Your task to perform on an android device: Open Youtube and go to "Your channel" Image 0: 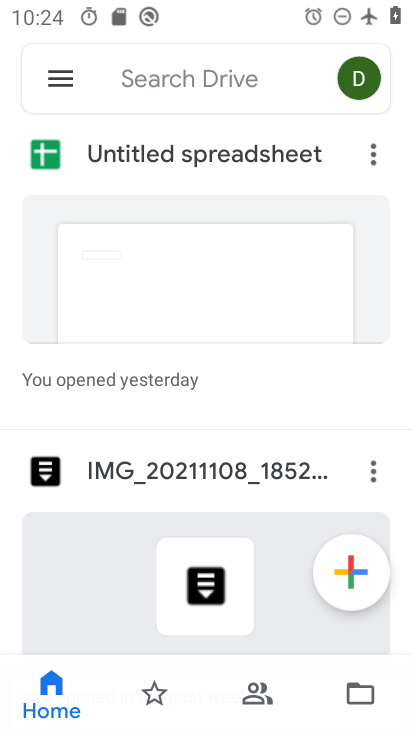
Step 0: press home button
Your task to perform on an android device: Open Youtube and go to "Your channel" Image 1: 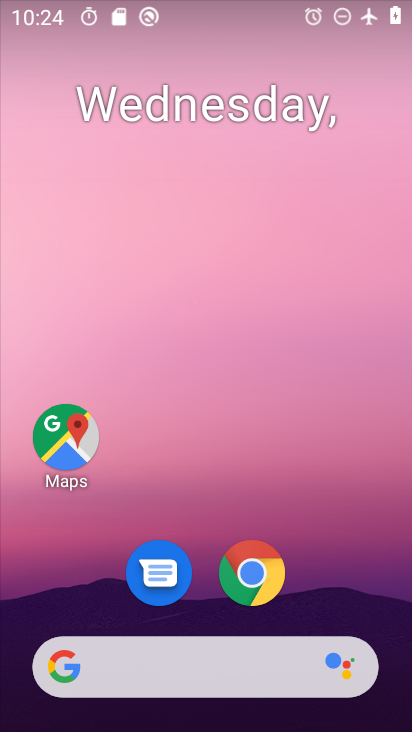
Step 1: drag from (296, 667) to (334, 271)
Your task to perform on an android device: Open Youtube and go to "Your channel" Image 2: 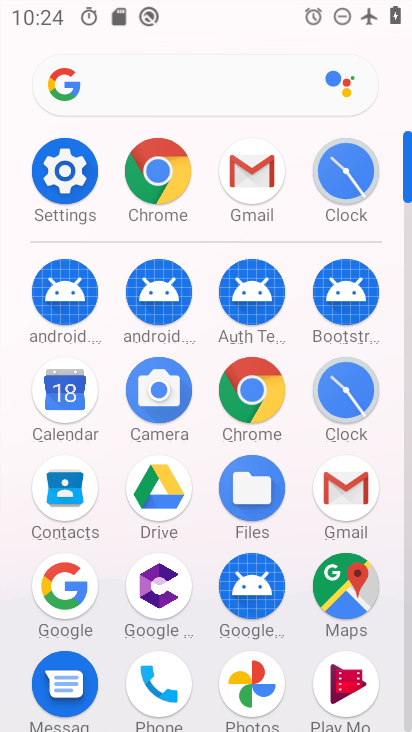
Step 2: drag from (270, 573) to (288, 300)
Your task to perform on an android device: Open Youtube and go to "Your channel" Image 3: 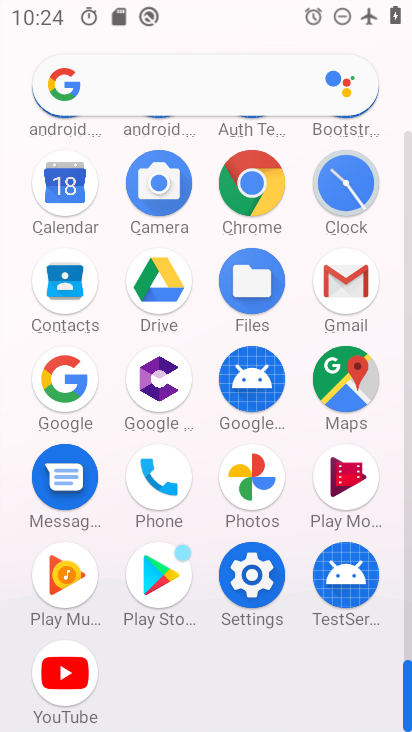
Step 3: click (80, 666)
Your task to perform on an android device: Open Youtube and go to "Your channel" Image 4: 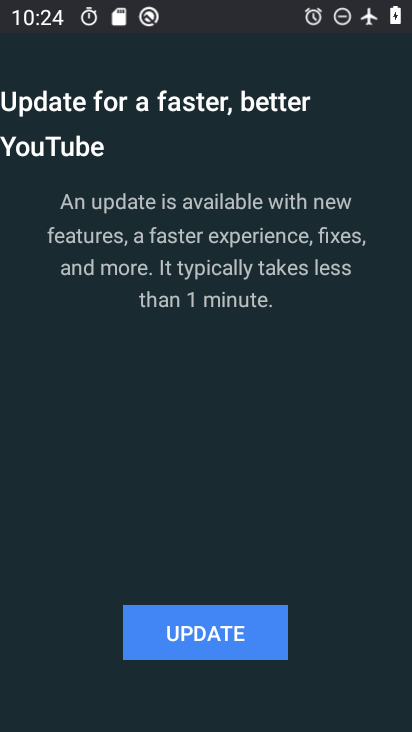
Step 4: click (258, 623)
Your task to perform on an android device: Open Youtube and go to "Your channel" Image 5: 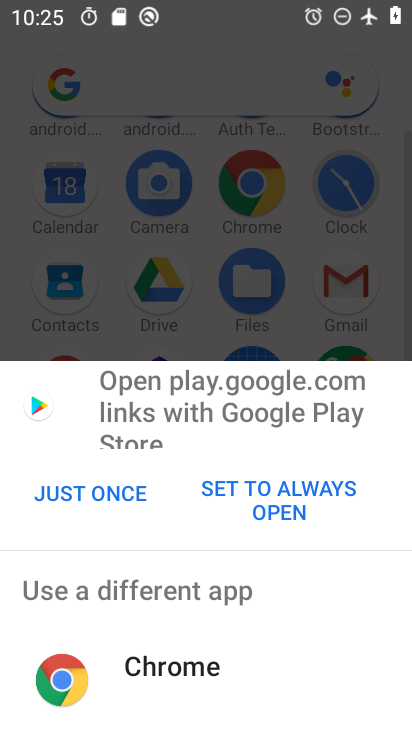
Step 5: click (115, 498)
Your task to perform on an android device: Open Youtube and go to "Your channel" Image 6: 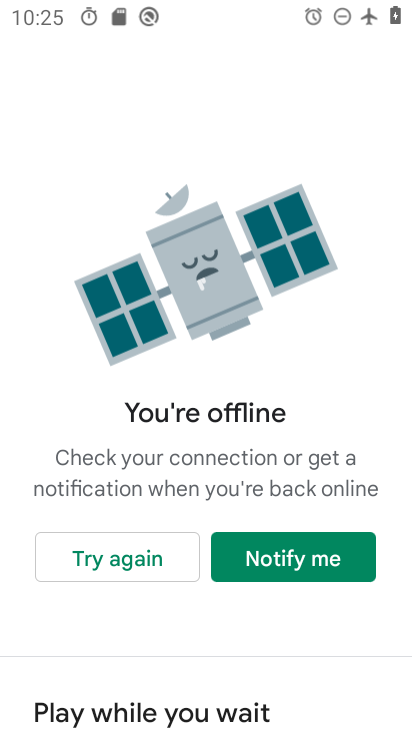
Step 6: task complete